Your task to perform on an android device: open a bookmark in the chrome app Image 0: 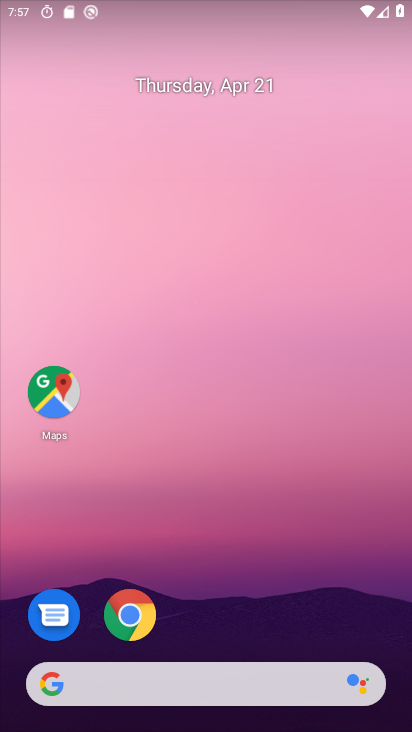
Step 0: press home button
Your task to perform on an android device: open a bookmark in the chrome app Image 1: 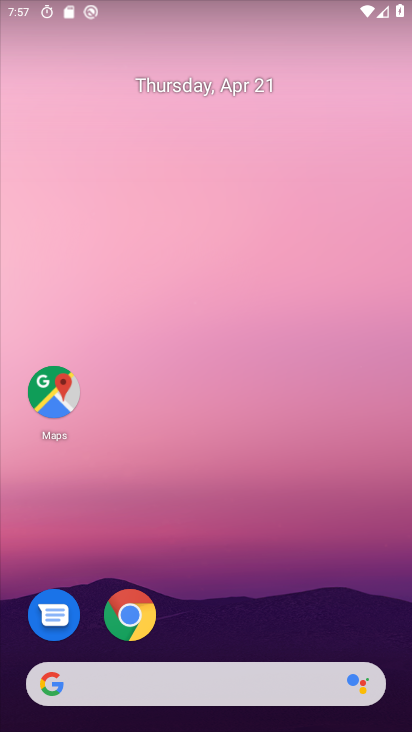
Step 1: drag from (157, 687) to (251, 329)
Your task to perform on an android device: open a bookmark in the chrome app Image 2: 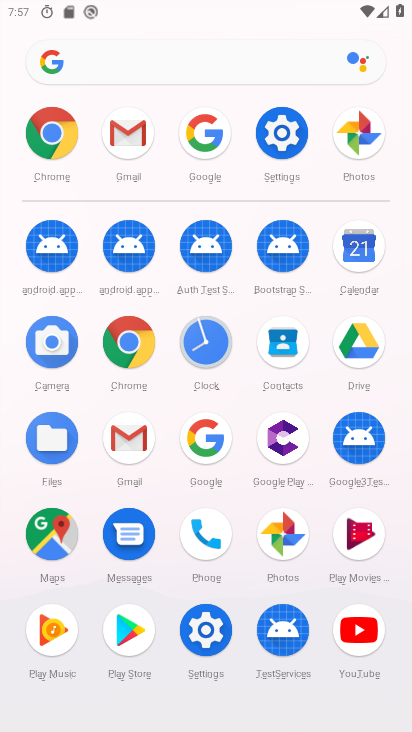
Step 2: click (55, 147)
Your task to perform on an android device: open a bookmark in the chrome app Image 3: 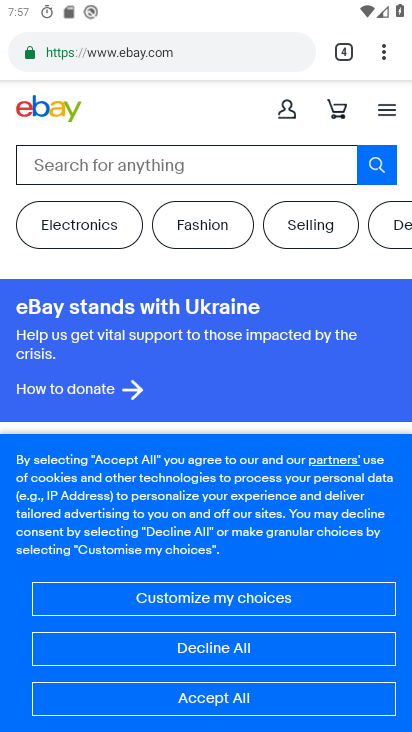
Step 3: click (378, 61)
Your task to perform on an android device: open a bookmark in the chrome app Image 4: 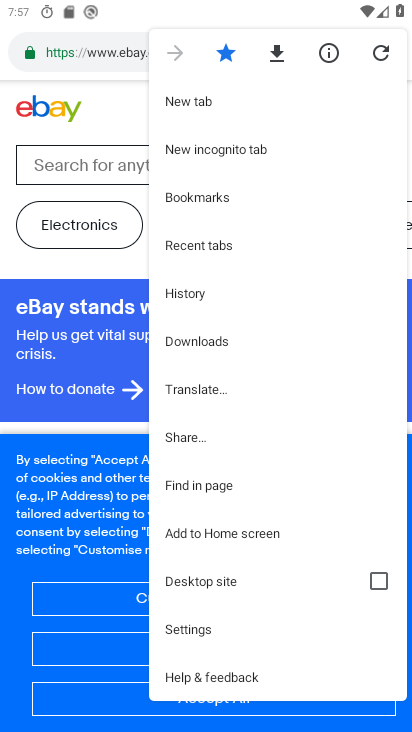
Step 4: click (186, 196)
Your task to perform on an android device: open a bookmark in the chrome app Image 5: 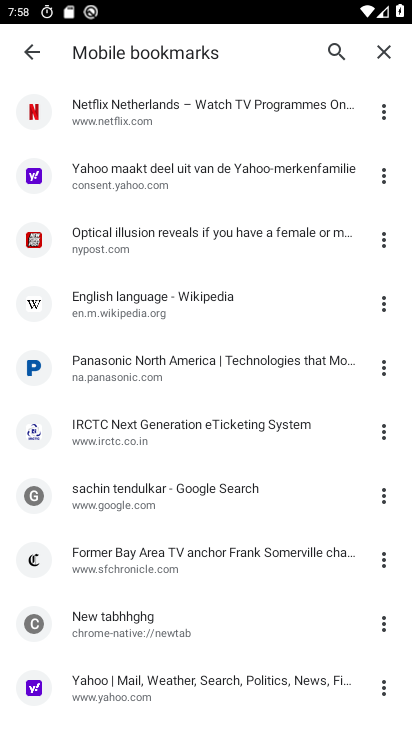
Step 5: task complete